Your task to perform on an android device: see creations saved in the google photos Image 0: 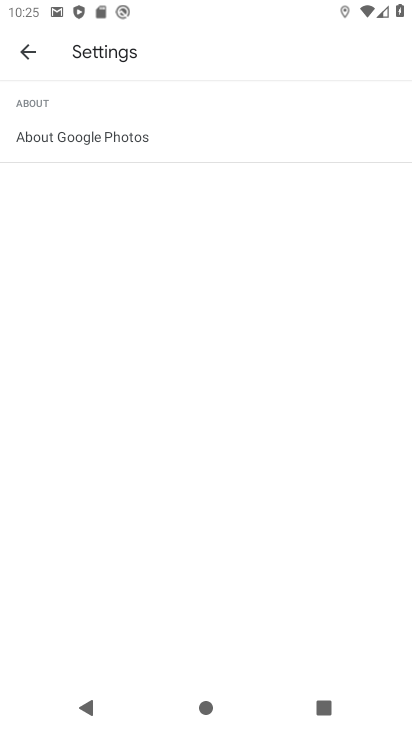
Step 0: press home button
Your task to perform on an android device: see creations saved in the google photos Image 1: 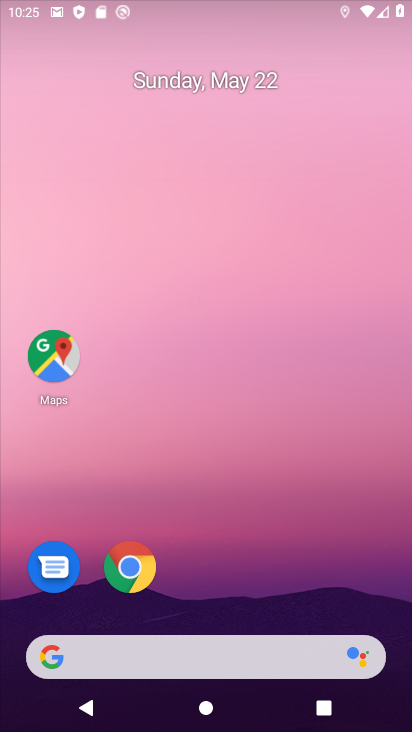
Step 1: click (229, 63)
Your task to perform on an android device: see creations saved in the google photos Image 2: 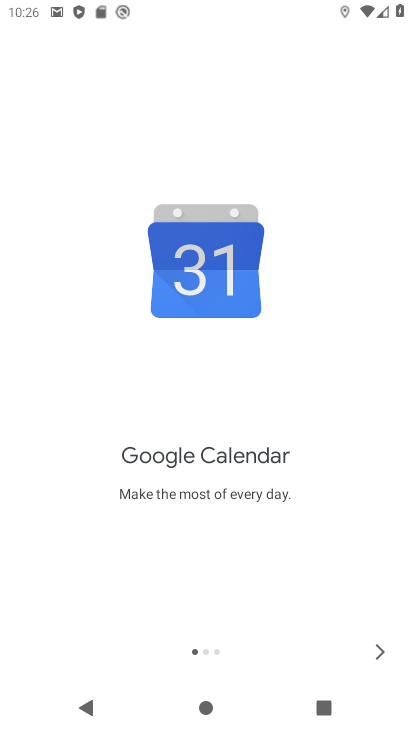
Step 2: press home button
Your task to perform on an android device: see creations saved in the google photos Image 3: 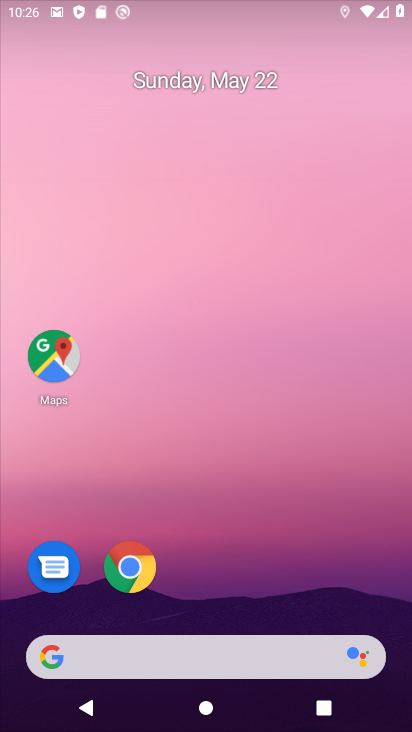
Step 3: drag from (328, 546) to (269, 113)
Your task to perform on an android device: see creations saved in the google photos Image 4: 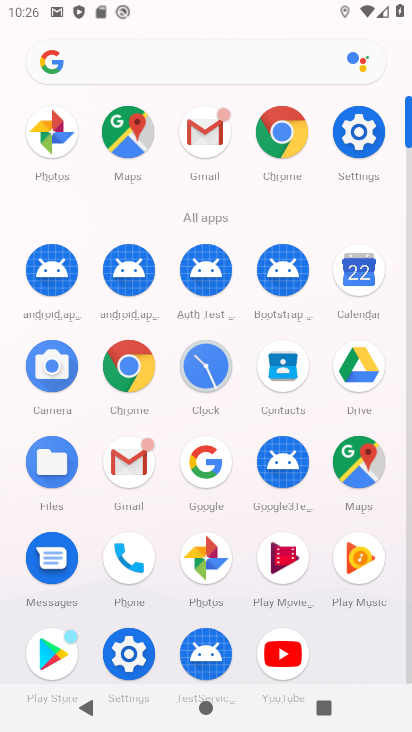
Step 4: click (191, 572)
Your task to perform on an android device: see creations saved in the google photos Image 5: 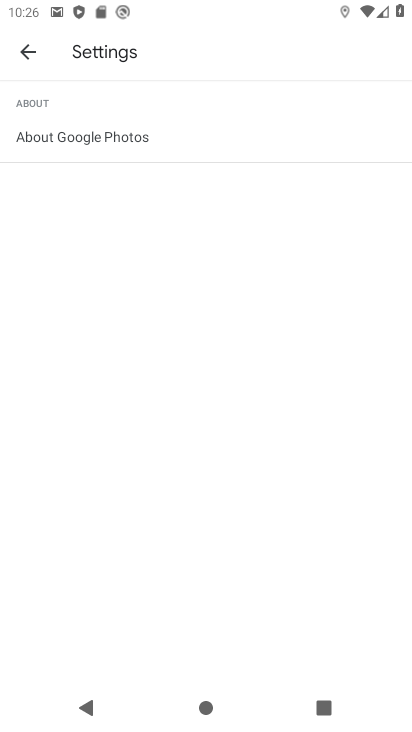
Step 5: click (15, 40)
Your task to perform on an android device: see creations saved in the google photos Image 6: 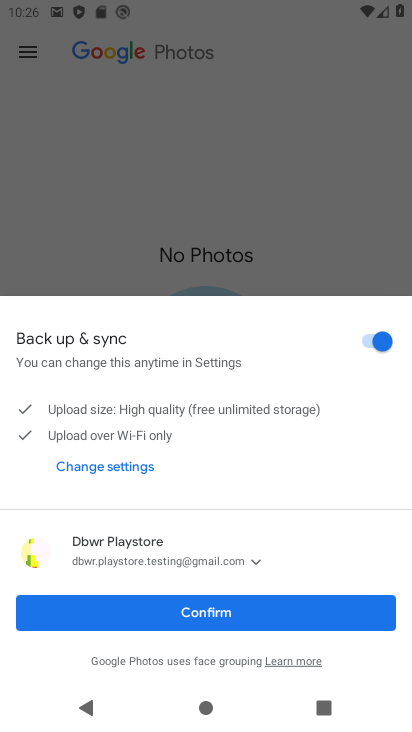
Step 6: click (292, 615)
Your task to perform on an android device: see creations saved in the google photos Image 7: 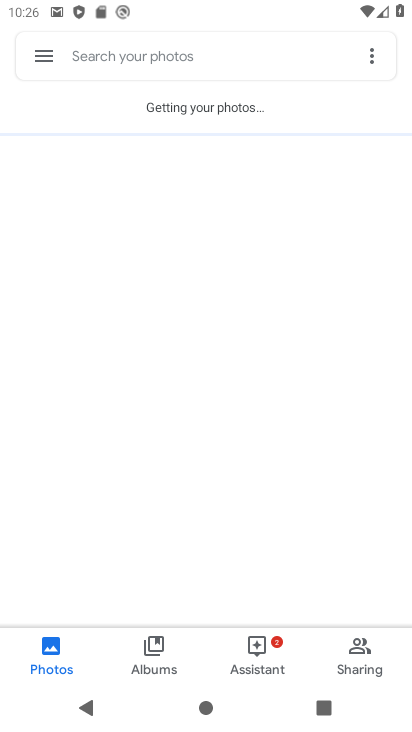
Step 7: click (155, 52)
Your task to perform on an android device: see creations saved in the google photos Image 8: 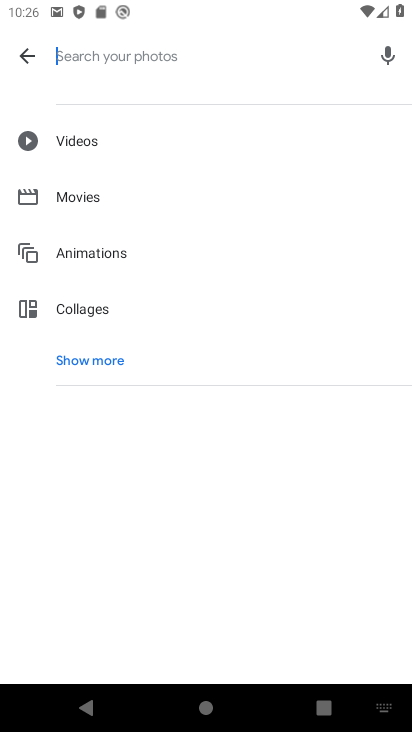
Step 8: type "creations "
Your task to perform on an android device: see creations saved in the google photos Image 9: 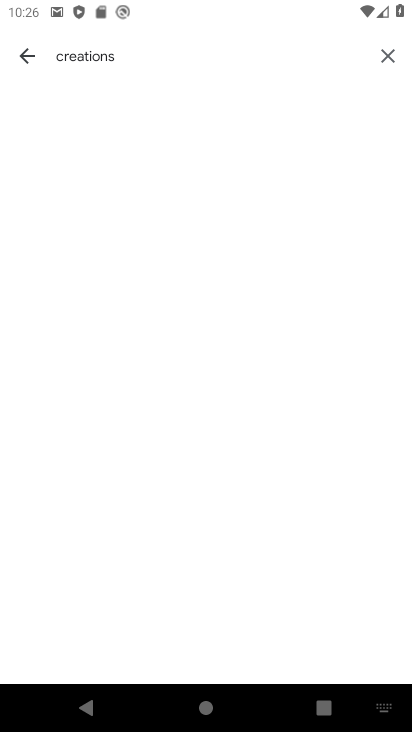
Step 9: task complete